Your task to perform on an android device: change the clock display to analog Image 0: 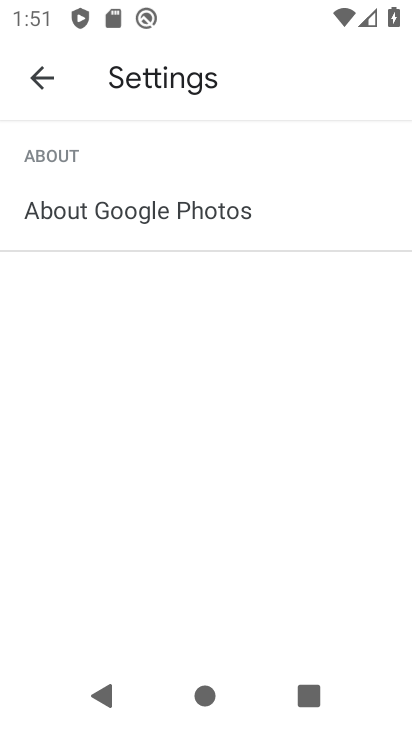
Step 0: press home button
Your task to perform on an android device: change the clock display to analog Image 1: 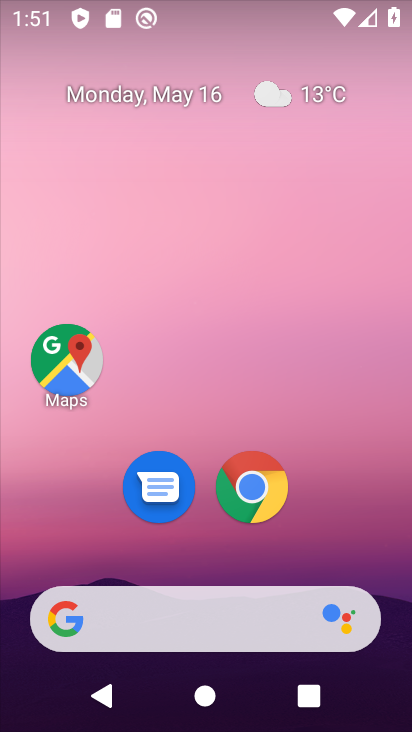
Step 1: drag from (305, 517) to (120, 88)
Your task to perform on an android device: change the clock display to analog Image 2: 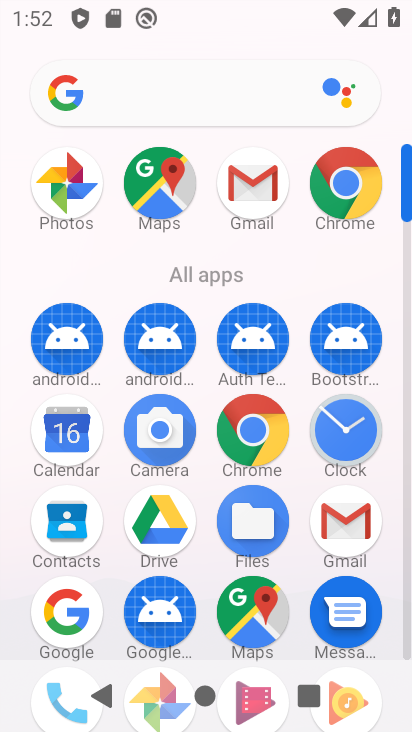
Step 2: click (343, 447)
Your task to perform on an android device: change the clock display to analog Image 3: 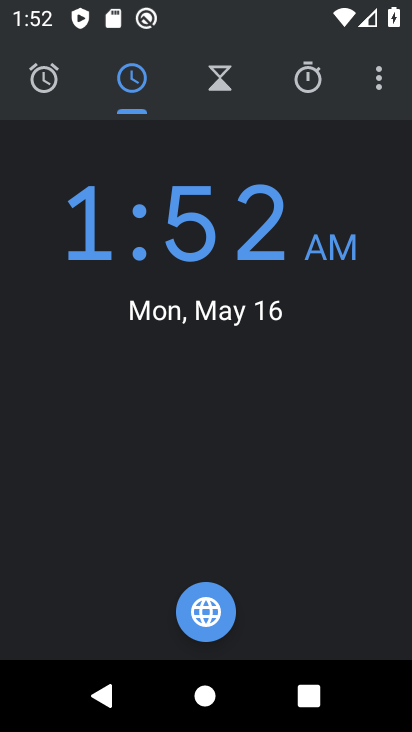
Step 3: click (381, 81)
Your task to perform on an android device: change the clock display to analog Image 4: 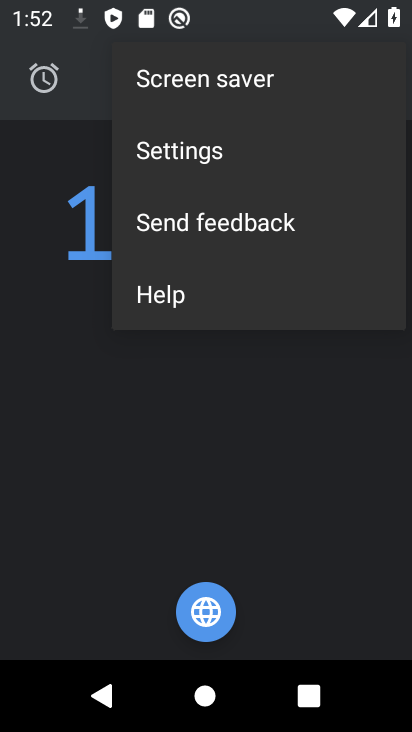
Step 4: click (192, 158)
Your task to perform on an android device: change the clock display to analog Image 5: 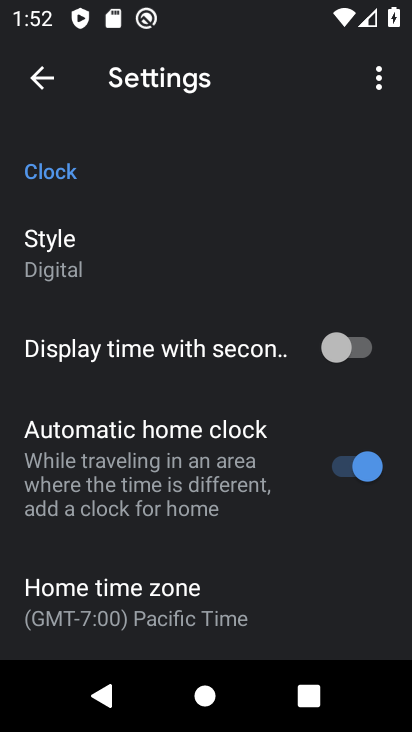
Step 5: click (73, 258)
Your task to perform on an android device: change the clock display to analog Image 6: 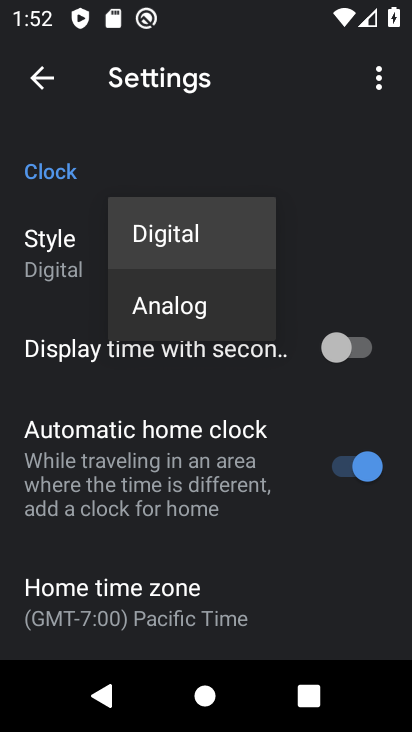
Step 6: click (181, 299)
Your task to perform on an android device: change the clock display to analog Image 7: 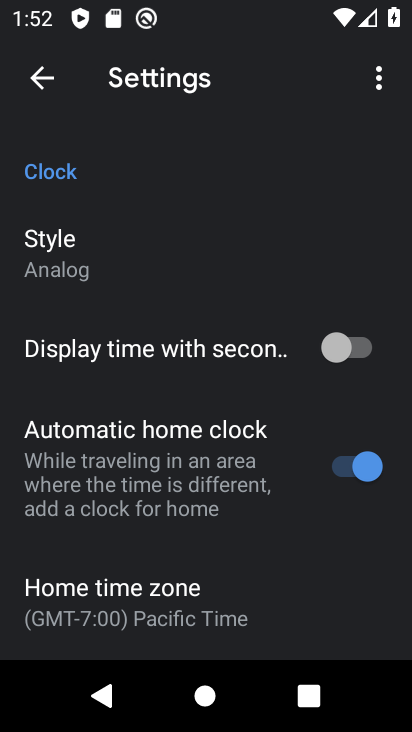
Step 7: task complete